Your task to perform on an android device: Search for seafood restaurants on Google Maps Image 0: 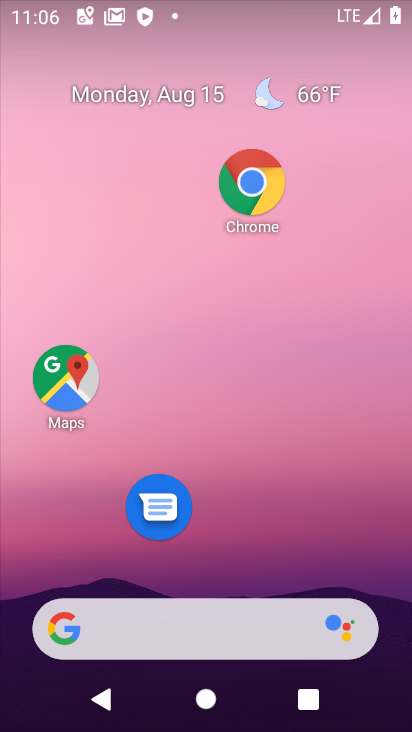
Step 0: click (79, 415)
Your task to perform on an android device: Search for seafood restaurants on Google Maps Image 1: 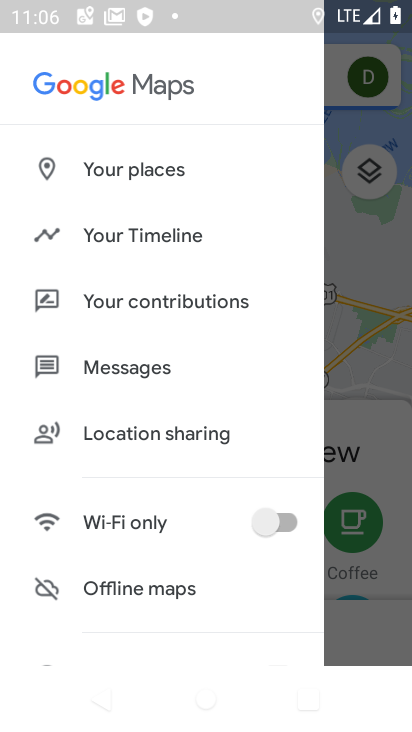
Step 1: click (377, 385)
Your task to perform on an android device: Search for seafood restaurants on Google Maps Image 2: 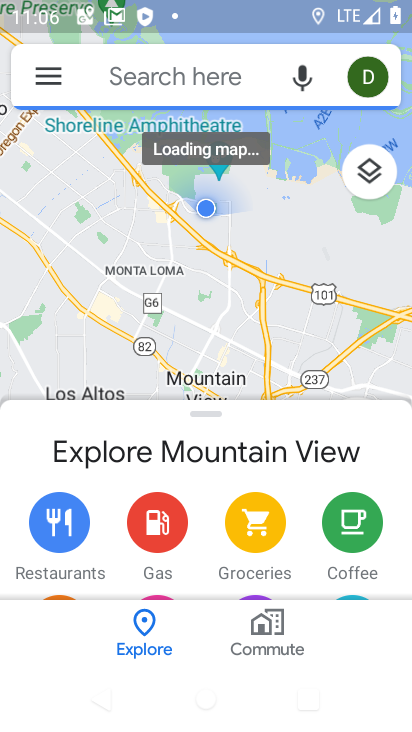
Step 2: click (241, 71)
Your task to perform on an android device: Search for seafood restaurants on Google Maps Image 3: 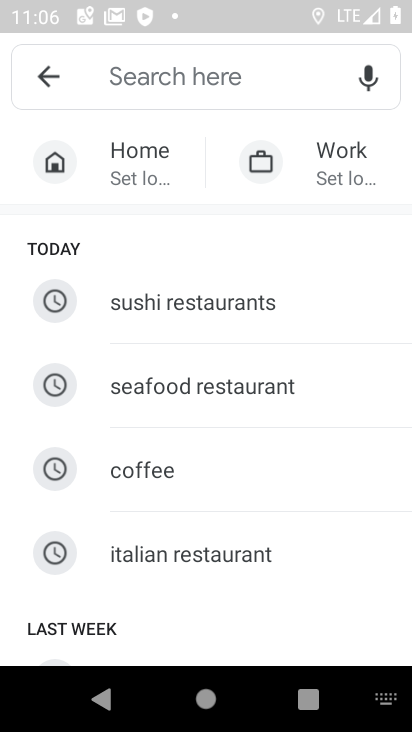
Step 3: type "seafood"
Your task to perform on an android device: Search for seafood restaurants on Google Maps Image 4: 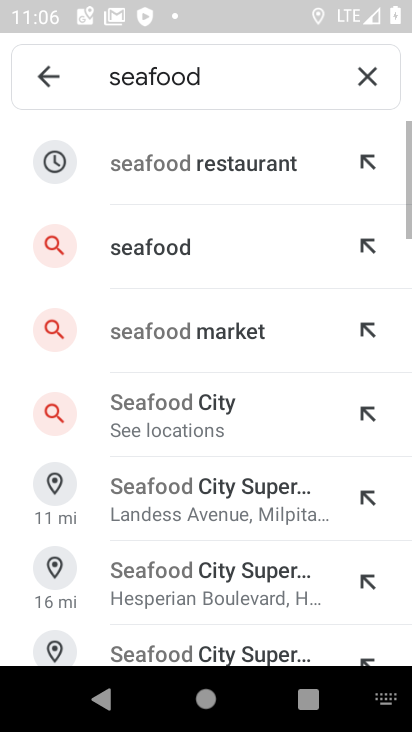
Step 4: click (224, 186)
Your task to perform on an android device: Search for seafood restaurants on Google Maps Image 5: 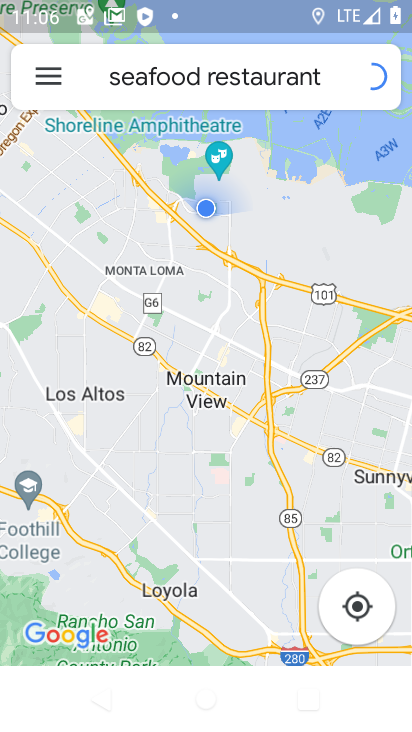
Step 5: task complete